Your task to perform on an android device: uninstall "Google Maps" Image 0: 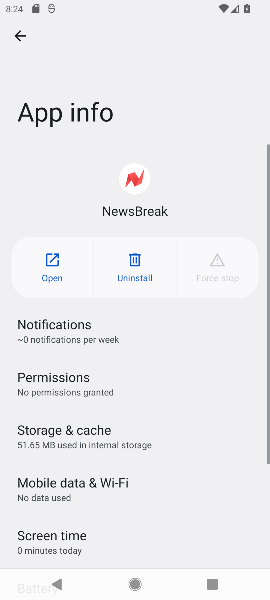
Step 0: press home button
Your task to perform on an android device: uninstall "Google Maps" Image 1: 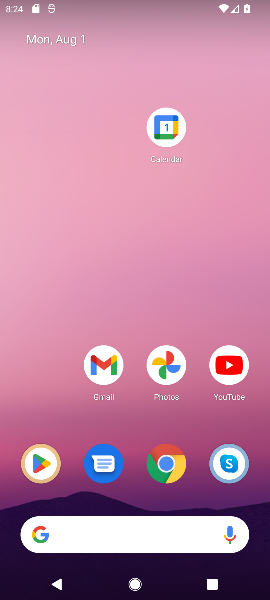
Step 1: drag from (68, 495) to (95, 167)
Your task to perform on an android device: uninstall "Google Maps" Image 2: 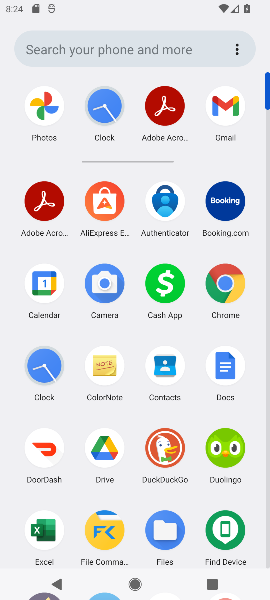
Step 2: drag from (269, 103) to (246, 307)
Your task to perform on an android device: uninstall "Google Maps" Image 3: 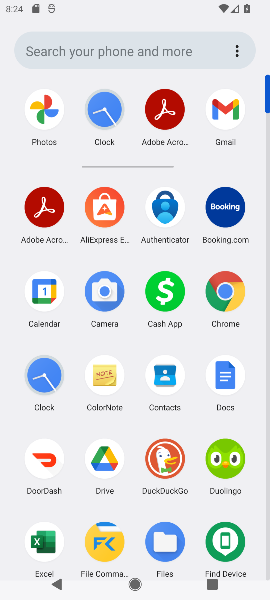
Step 3: click (266, 316)
Your task to perform on an android device: uninstall "Google Maps" Image 4: 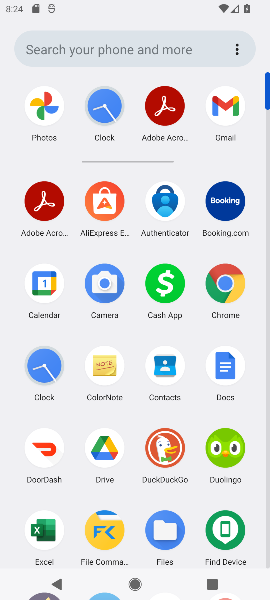
Step 4: drag from (269, 102) to (236, 228)
Your task to perform on an android device: uninstall "Google Maps" Image 5: 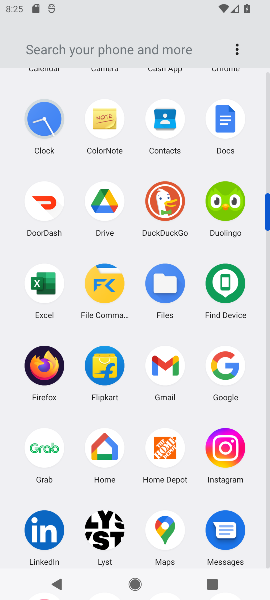
Step 5: click (171, 523)
Your task to perform on an android device: uninstall "Google Maps" Image 6: 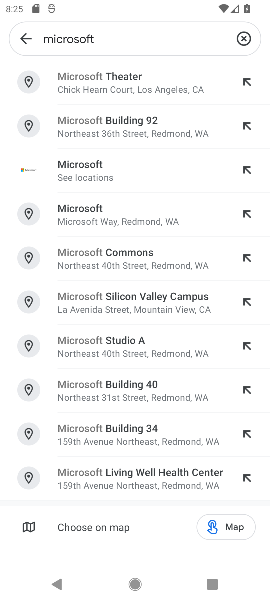
Step 6: click (24, 37)
Your task to perform on an android device: uninstall "Google Maps" Image 7: 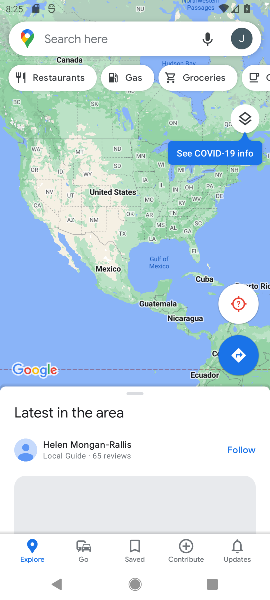
Step 7: click (58, 581)
Your task to perform on an android device: uninstall "Google Maps" Image 8: 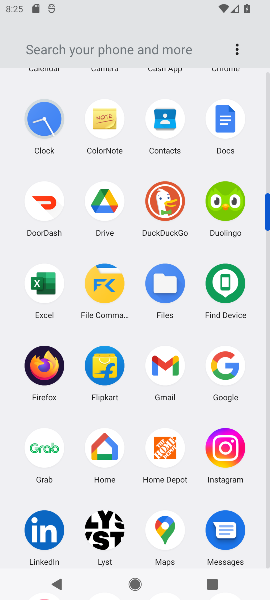
Step 8: click (156, 531)
Your task to perform on an android device: uninstall "Google Maps" Image 9: 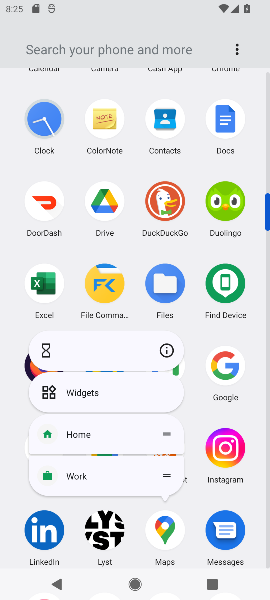
Step 9: task complete